Your task to perform on an android device: turn vacation reply on in the gmail app Image 0: 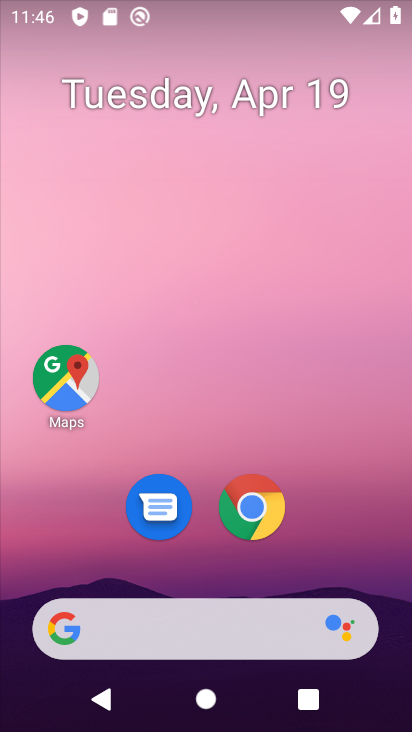
Step 0: drag from (357, 543) to (358, 110)
Your task to perform on an android device: turn vacation reply on in the gmail app Image 1: 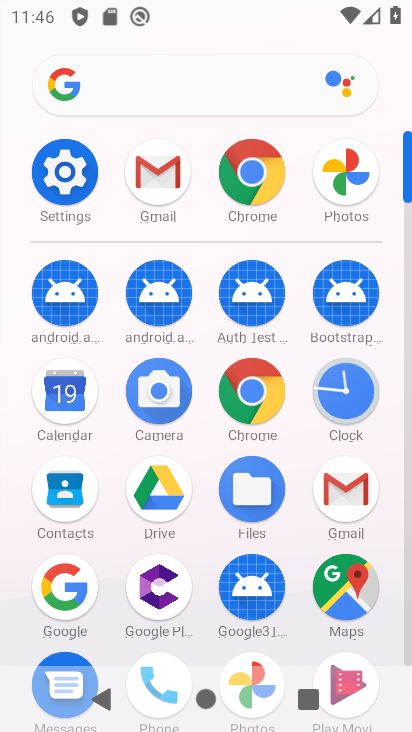
Step 1: click (337, 492)
Your task to perform on an android device: turn vacation reply on in the gmail app Image 2: 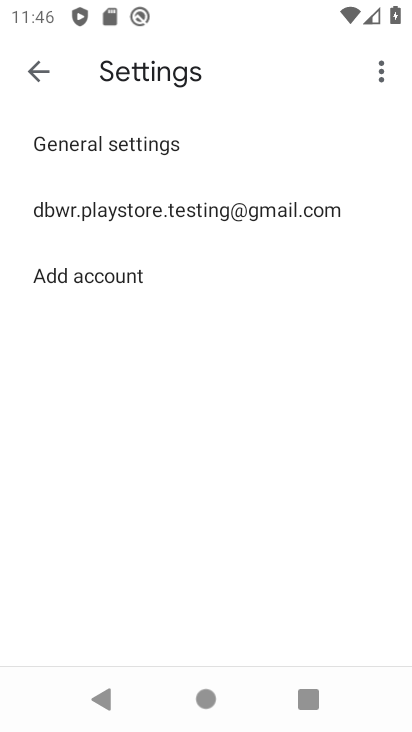
Step 2: click (318, 212)
Your task to perform on an android device: turn vacation reply on in the gmail app Image 3: 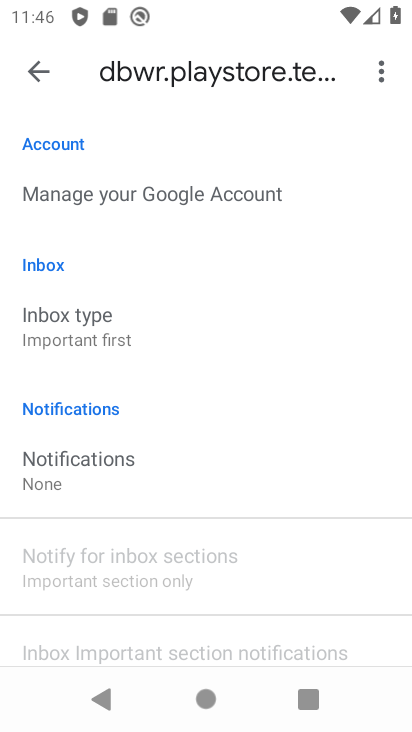
Step 3: drag from (151, 642) to (221, 321)
Your task to perform on an android device: turn vacation reply on in the gmail app Image 4: 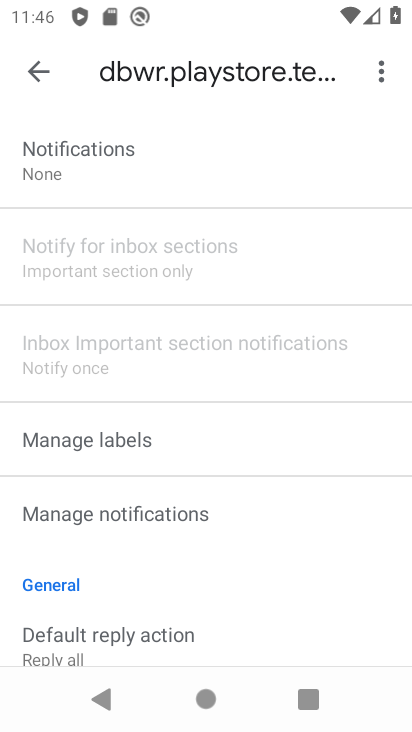
Step 4: drag from (240, 594) to (244, 259)
Your task to perform on an android device: turn vacation reply on in the gmail app Image 5: 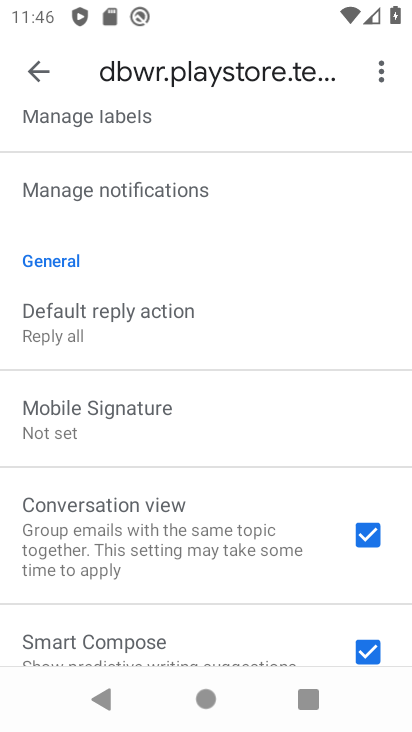
Step 5: drag from (233, 621) to (266, 351)
Your task to perform on an android device: turn vacation reply on in the gmail app Image 6: 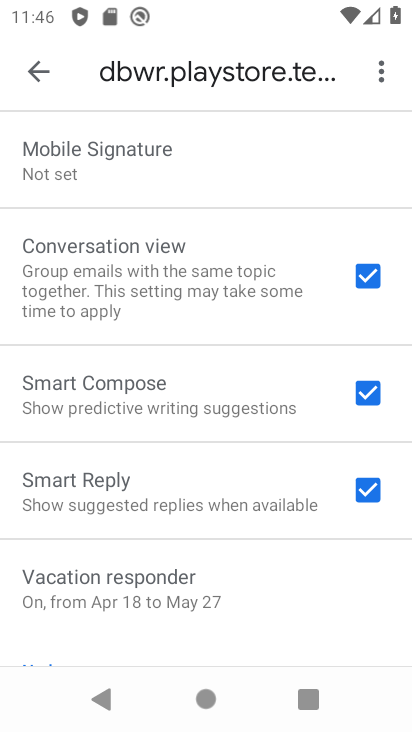
Step 6: drag from (225, 529) to (225, 266)
Your task to perform on an android device: turn vacation reply on in the gmail app Image 7: 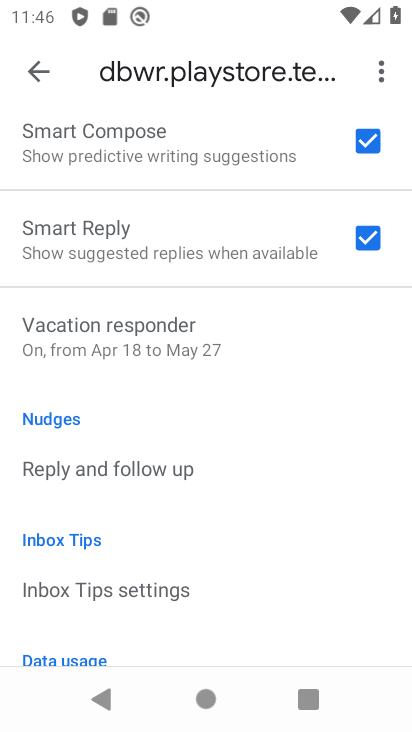
Step 7: click (162, 343)
Your task to perform on an android device: turn vacation reply on in the gmail app Image 8: 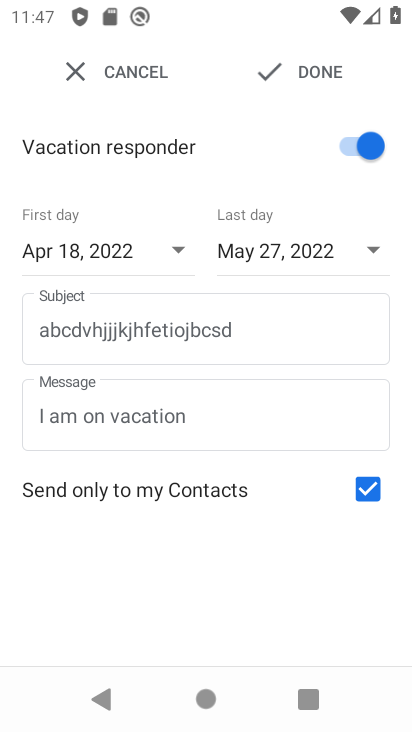
Step 8: task complete